Your task to perform on an android device: toggle priority inbox in the gmail app Image 0: 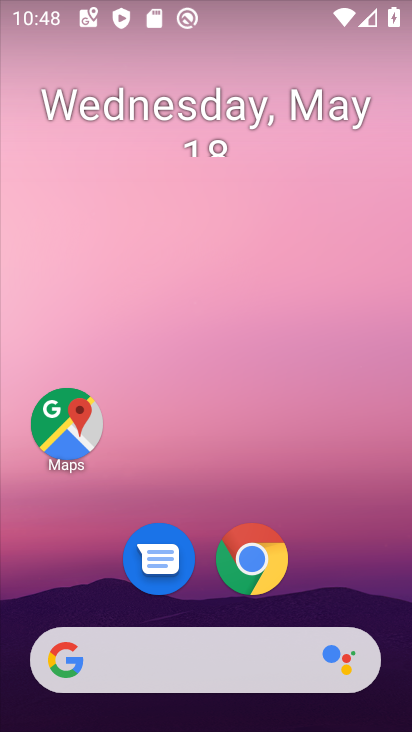
Step 0: drag from (169, 608) to (329, 105)
Your task to perform on an android device: toggle priority inbox in the gmail app Image 1: 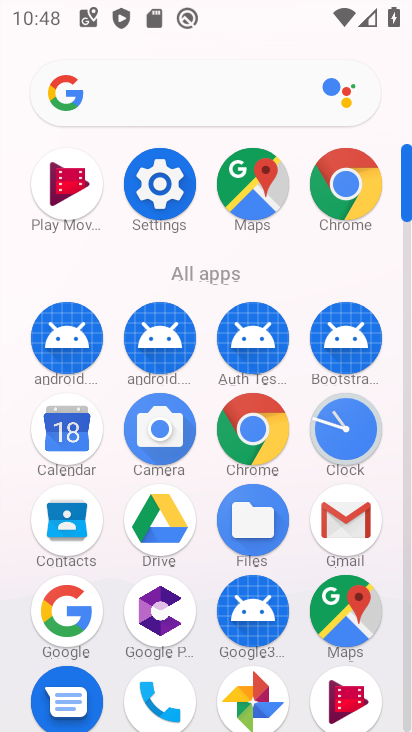
Step 1: click (363, 517)
Your task to perform on an android device: toggle priority inbox in the gmail app Image 2: 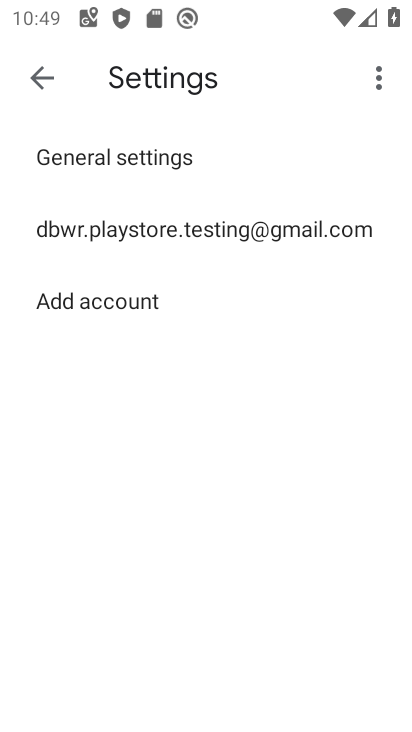
Step 2: click (122, 225)
Your task to perform on an android device: toggle priority inbox in the gmail app Image 3: 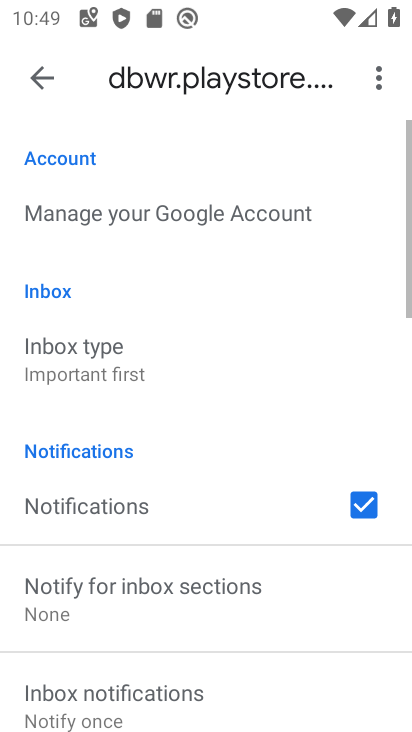
Step 3: click (104, 364)
Your task to perform on an android device: toggle priority inbox in the gmail app Image 4: 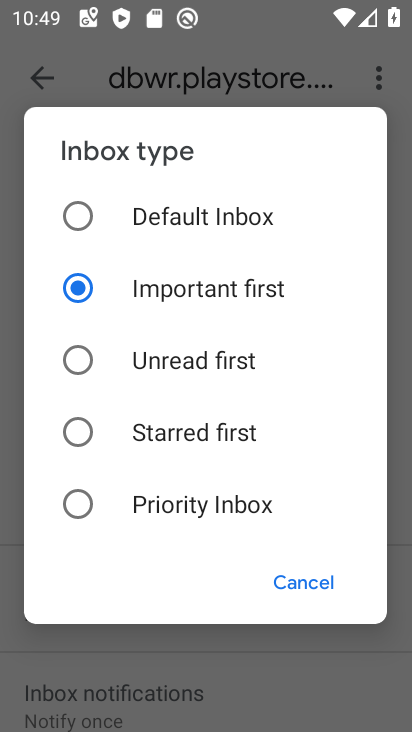
Step 4: click (76, 496)
Your task to perform on an android device: toggle priority inbox in the gmail app Image 5: 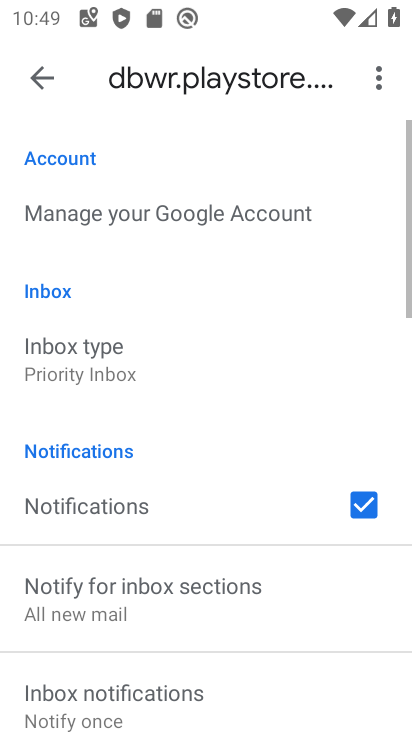
Step 5: task complete